Your task to perform on an android device: Open internet settings Image 0: 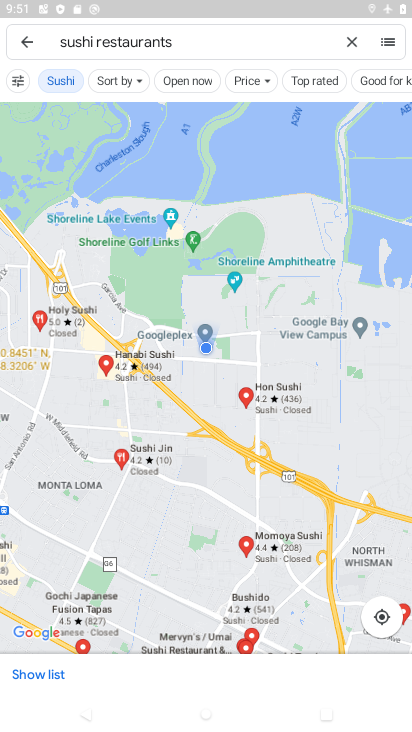
Step 0: press home button
Your task to perform on an android device: Open internet settings Image 1: 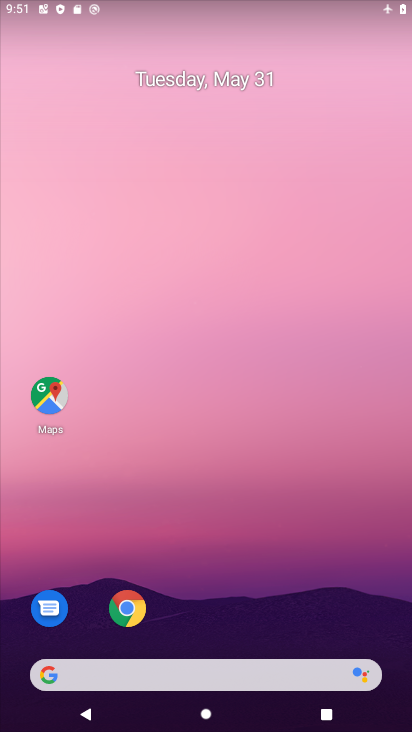
Step 1: drag from (221, 658) to (279, 3)
Your task to perform on an android device: Open internet settings Image 2: 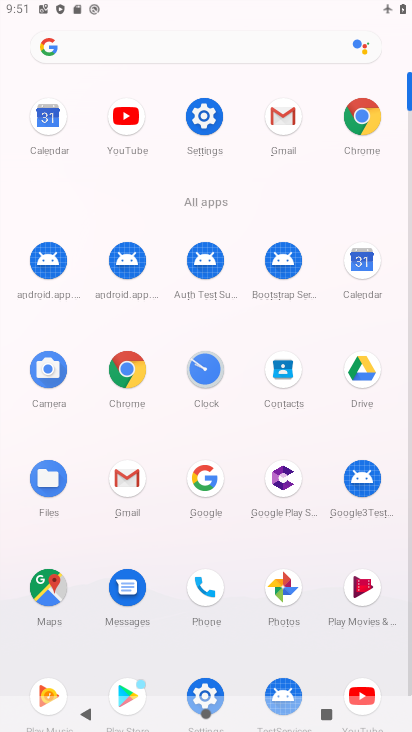
Step 2: click (204, 138)
Your task to perform on an android device: Open internet settings Image 3: 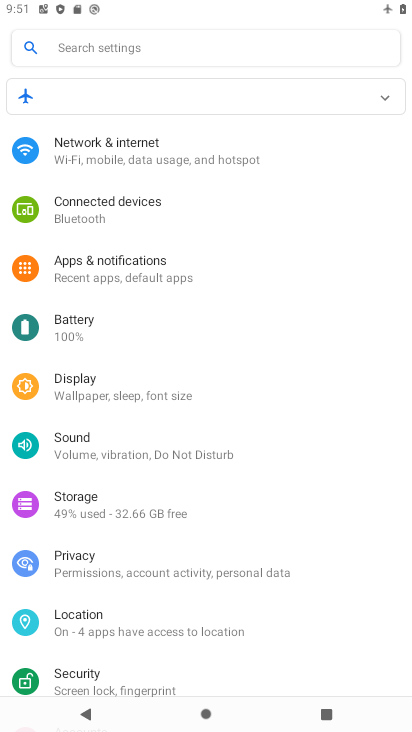
Step 3: click (138, 154)
Your task to perform on an android device: Open internet settings Image 4: 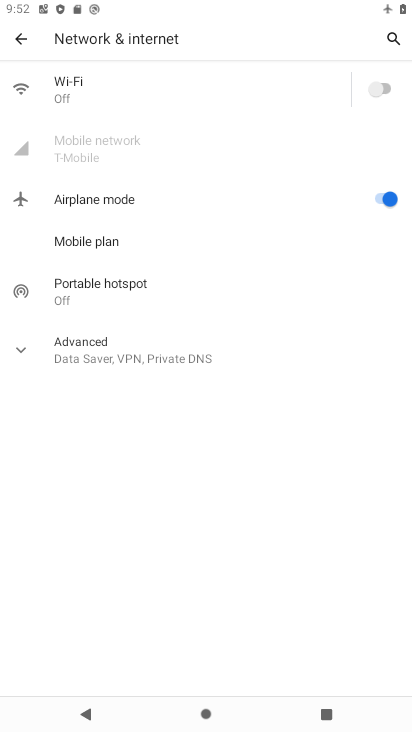
Step 4: click (96, 337)
Your task to perform on an android device: Open internet settings Image 5: 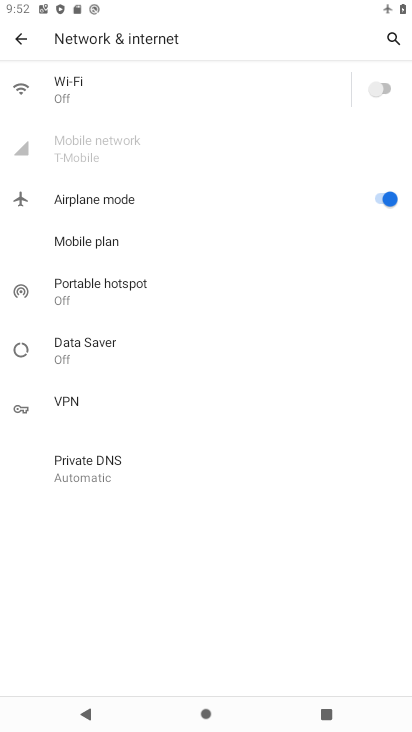
Step 5: task complete